Your task to perform on an android device: Go to network settings Image 0: 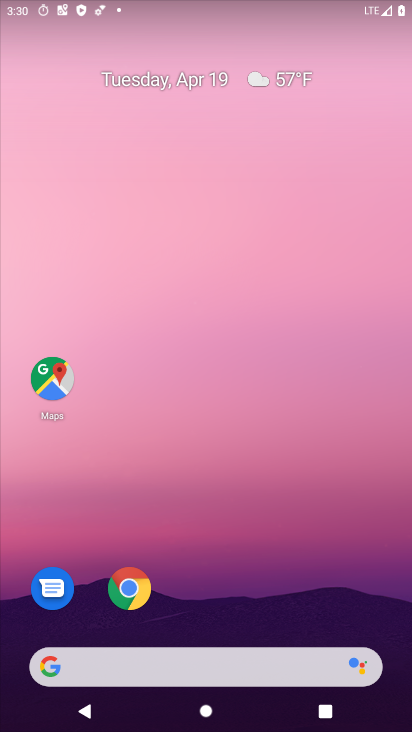
Step 0: click (397, 214)
Your task to perform on an android device: Go to network settings Image 1: 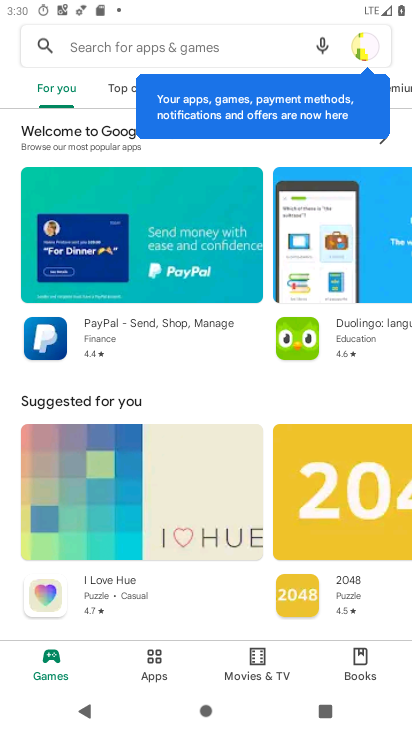
Step 1: press home button
Your task to perform on an android device: Go to network settings Image 2: 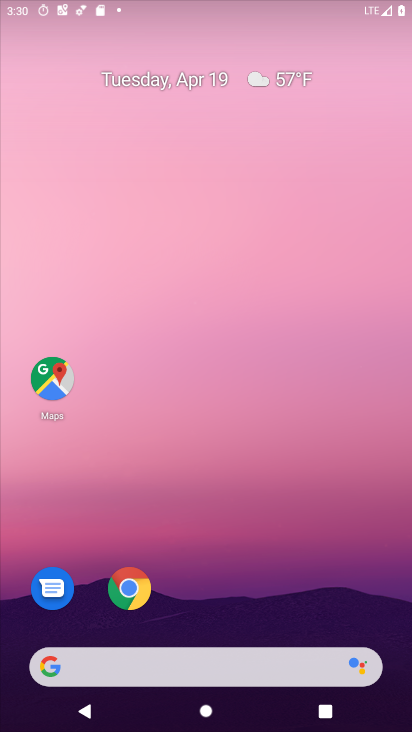
Step 2: drag from (248, 538) to (370, 101)
Your task to perform on an android device: Go to network settings Image 3: 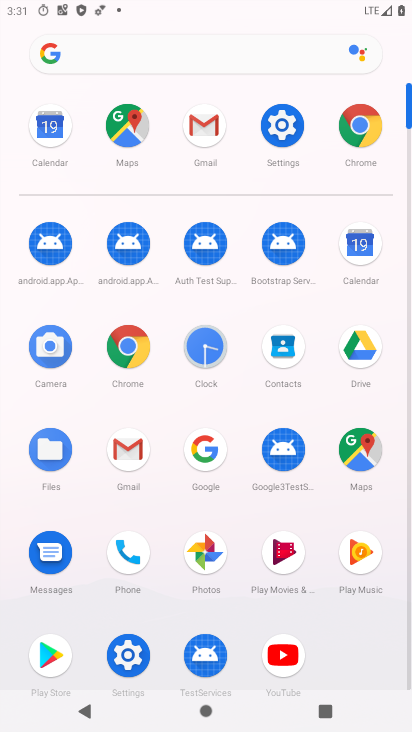
Step 3: click (288, 120)
Your task to perform on an android device: Go to network settings Image 4: 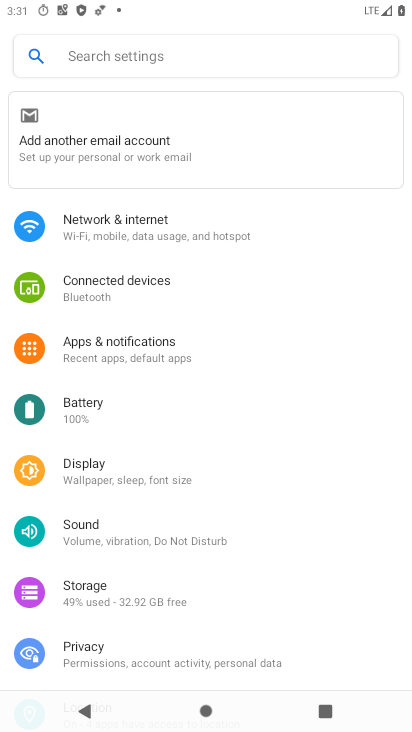
Step 4: click (172, 227)
Your task to perform on an android device: Go to network settings Image 5: 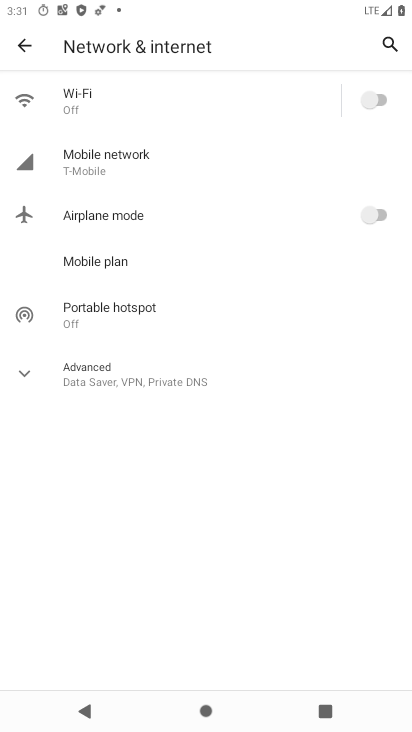
Step 5: task complete